Your task to perform on an android device: Open Google Image 0: 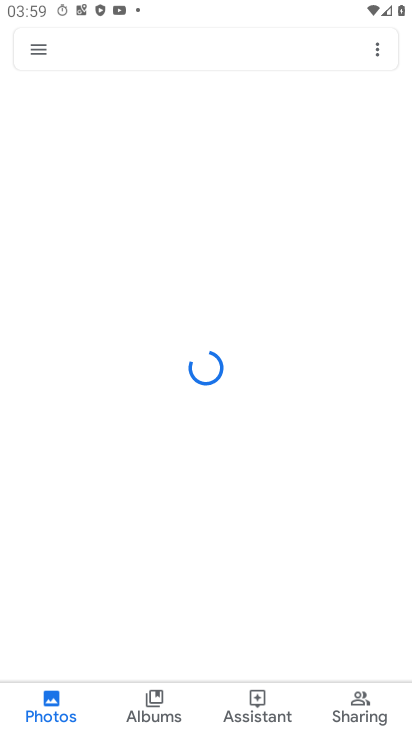
Step 0: press back button
Your task to perform on an android device: Open Google Image 1: 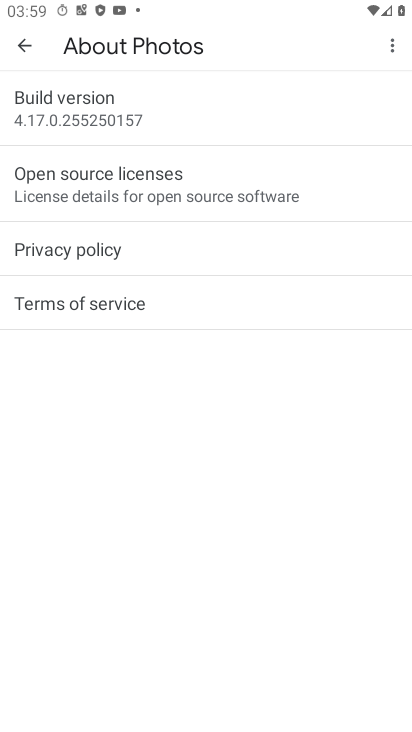
Step 1: click (36, 44)
Your task to perform on an android device: Open Google Image 2: 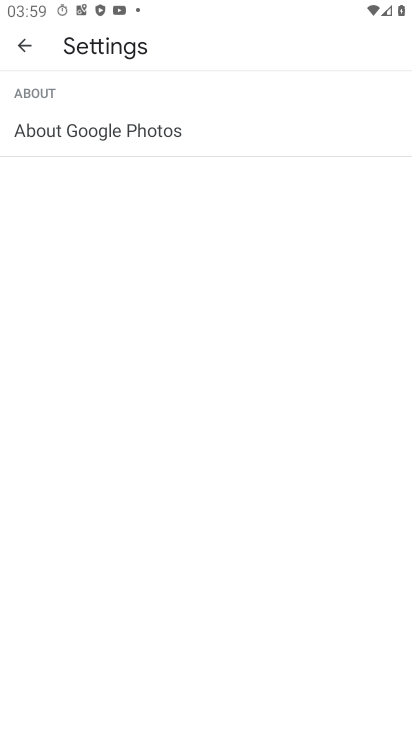
Step 2: click (17, 49)
Your task to perform on an android device: Open Google Image 3: 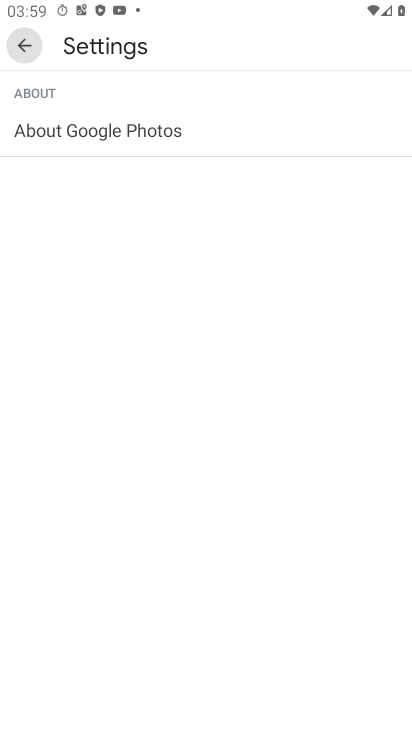
Step 3: click (15, 46)
Your task to perform on an android device: Open Google Image 4: 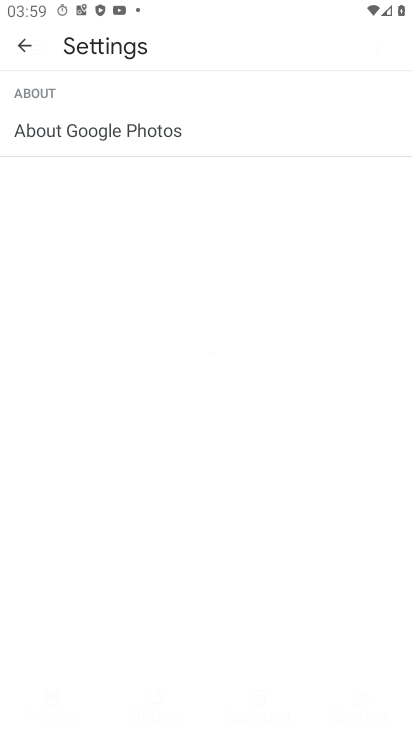
Step 4: click (15, 45)
Your task to perform on an android device: Open Google Image 5: 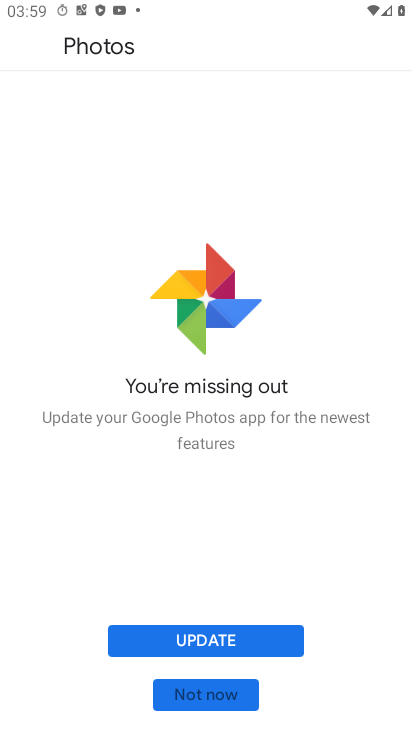
Step 5: click (221, 692)
Your task to perform on an android device: Open Google Image 6: 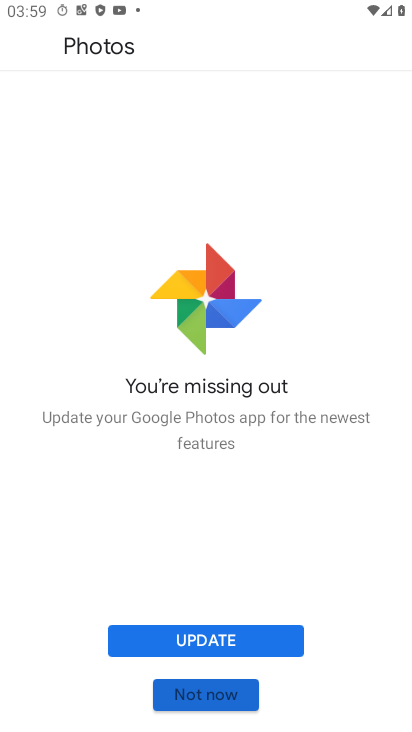
Step 6: click (230, 698)
Your task to perform on an android device: Open Google Image 7: 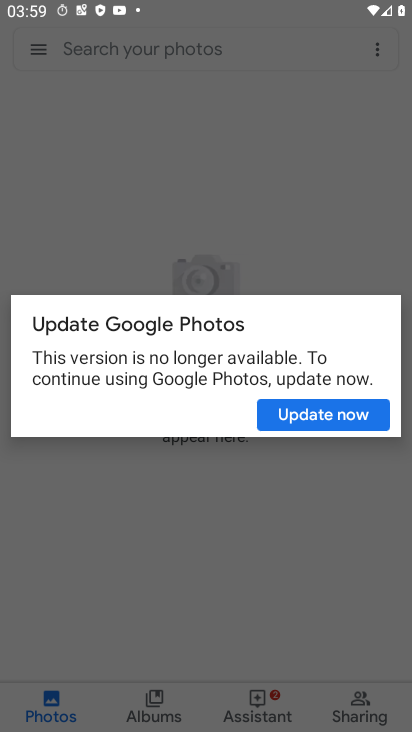
Step 7: click (213, 93)
Your task to perform on an android device: Open Google Image 8: 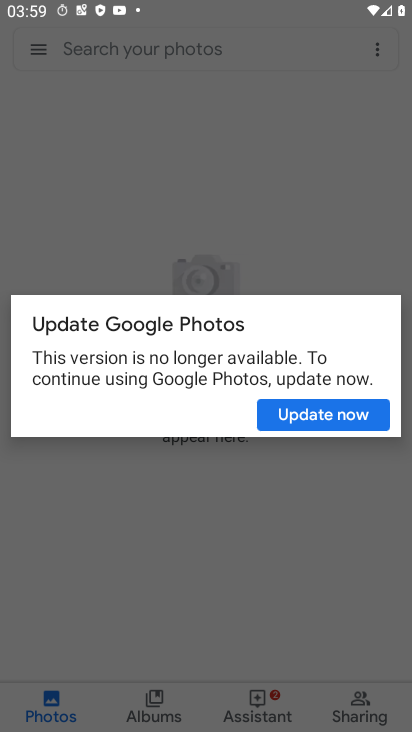
Step 8: click (300, 167)
Your task to perform on an android device: Open Google Image 9: 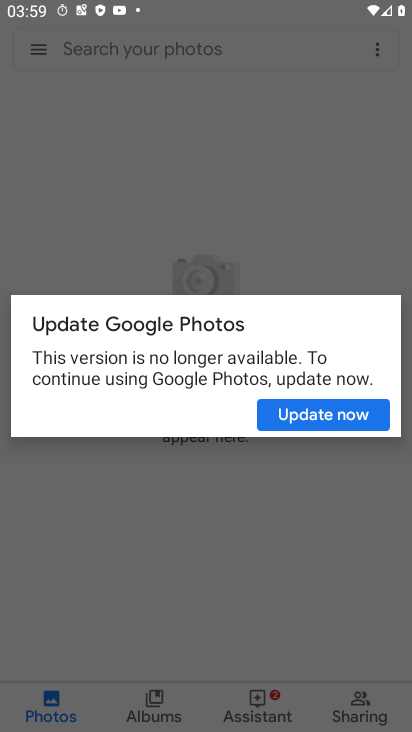
Step 9: click (290, 140)
Your task to perform on an android device: Open Google Image 10: 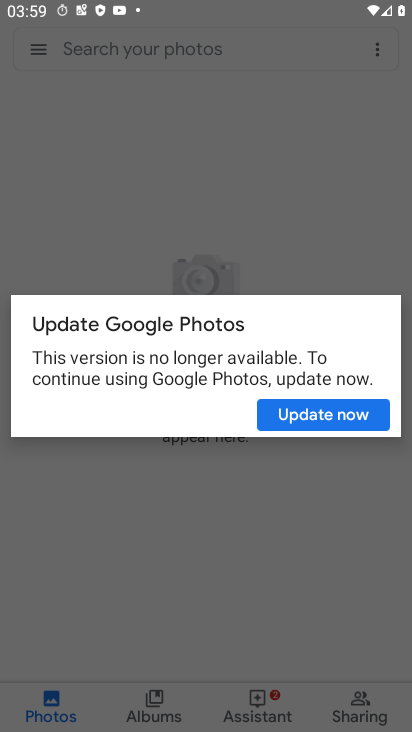
Step 10: click (279, 157)
Your task to perform on an android device: Open Google Image 11: 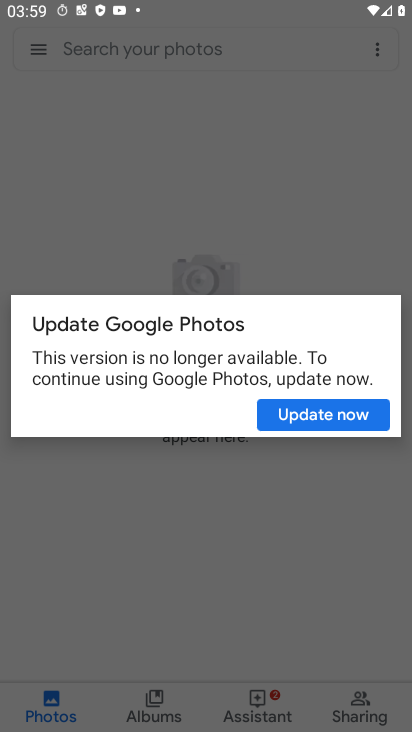
Step 11: click (282, 158)
Your task to perform on an android device: Open Google Image 12: 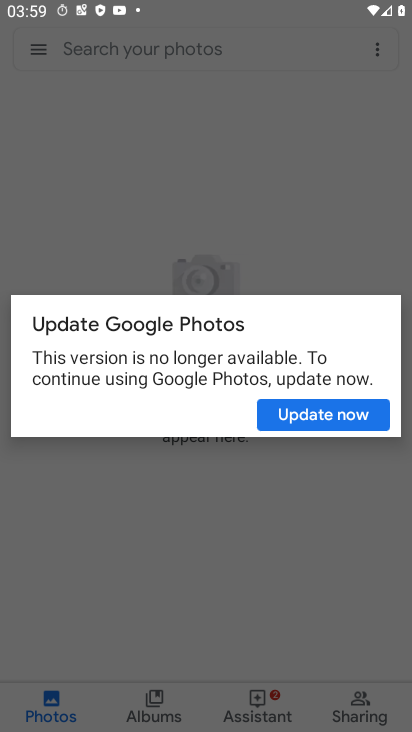
Step 12: click (316, 160)
Your task to perform on an android device: Open Google Image 13: 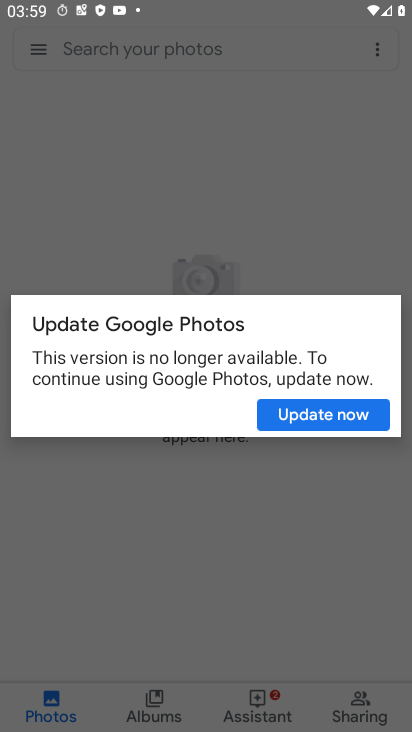
Step 13: click (317, 155)
Your task to perform on an android device: Open Google Image 14: 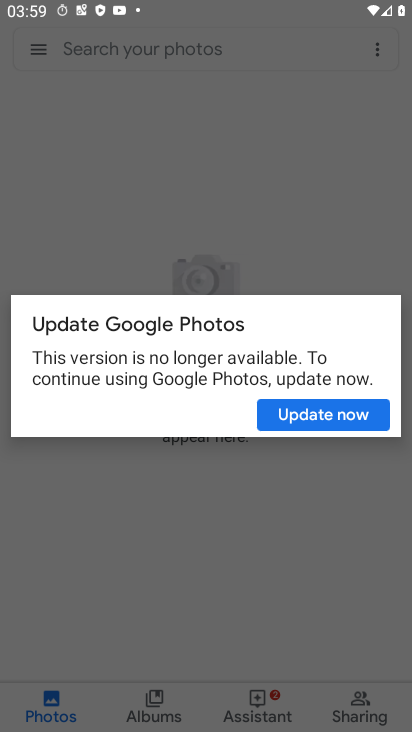
Step 14: click (321, 152)
Your task to perform on an android device: Open Google Image 15: 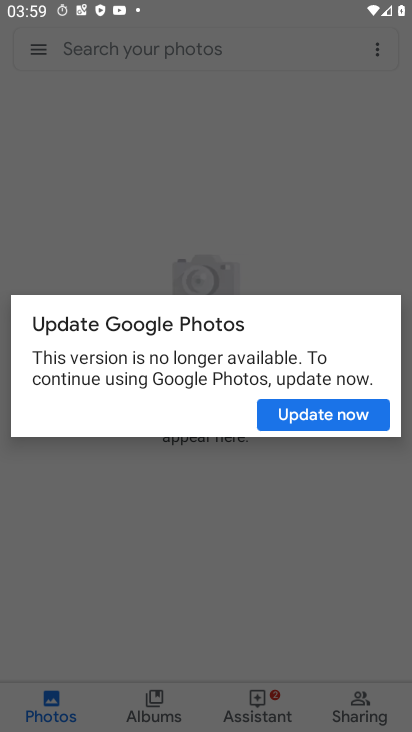
Step 15: click (327, 167)
Your task to perform on an android device: Open Google Image 16: 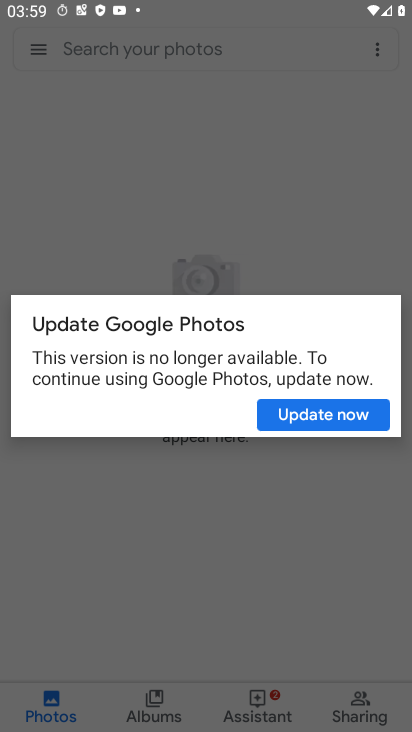
Step 16: click (273, 557)
Your task to perform on an android device: Open Google Image 17: 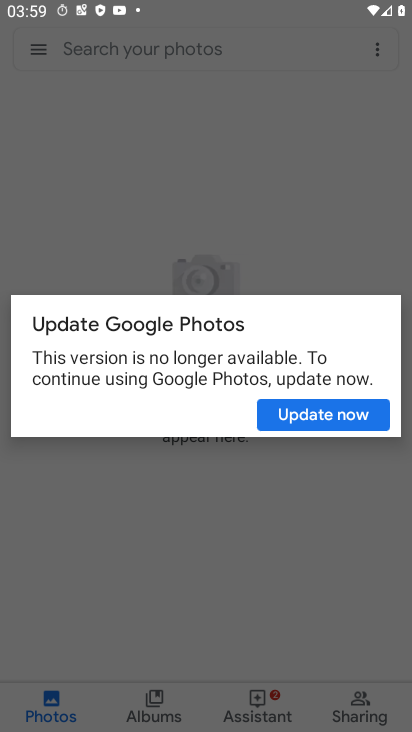
Step 17: click (316, 519)
Your task to perform on an android device: Open Google Image 18: 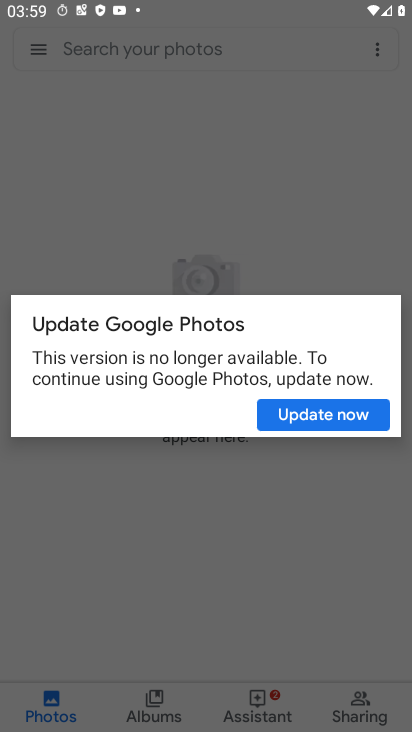
Step 18: click (318, 518)
Your task to perform on an android device: Open Google Image 19: 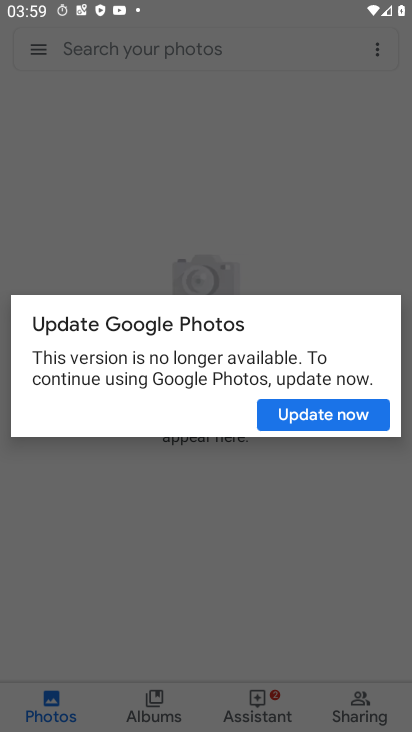
Step 19: click (319, 518)
Your task to perform on an android device: Open Google Image 20: 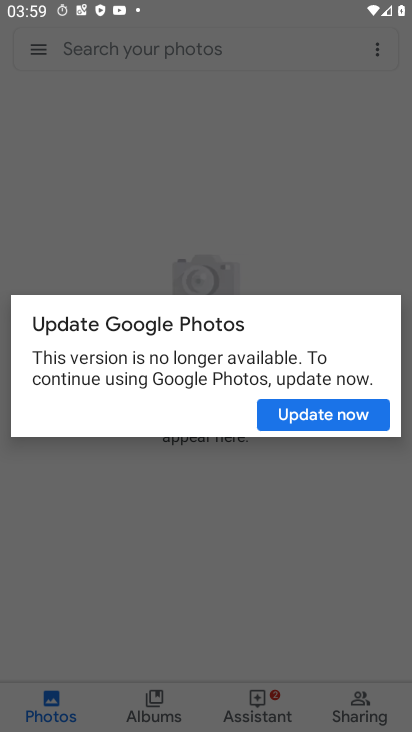
Step 20: click (290, 264)
Your task to perform on an android device: Open Google Image 21: 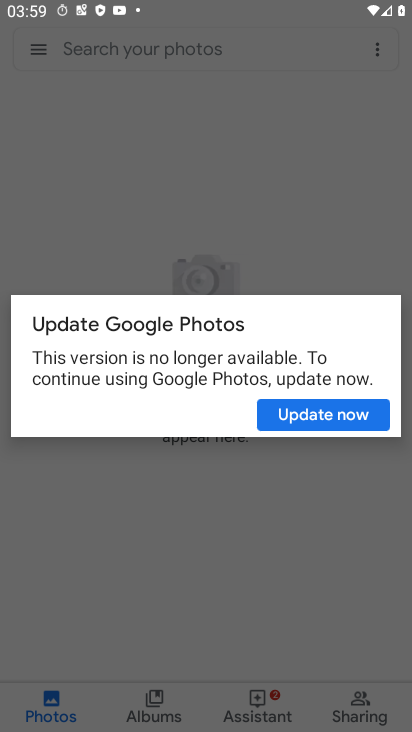
Step 21: press back button
Your task to perform on an android device: Open Google Image 22: 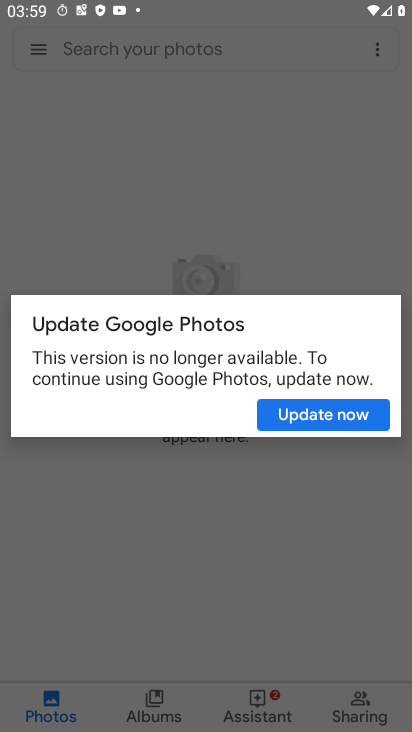
Step 22: press back button
Your task to perform on an android device: Open Google Image 23: 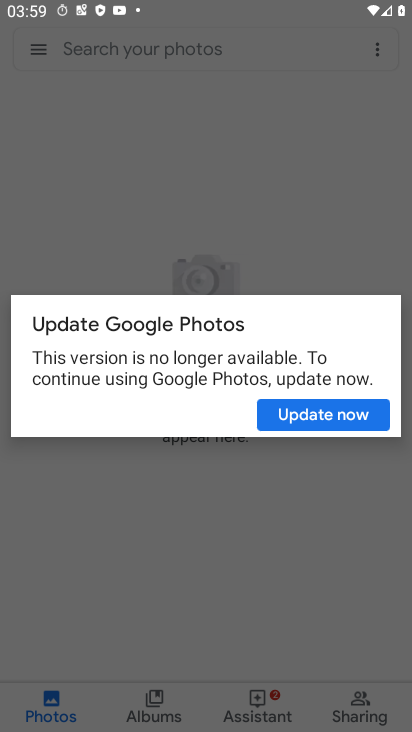
Step 23: press home button
Your task to perform on an android device: Open Google Image 24: 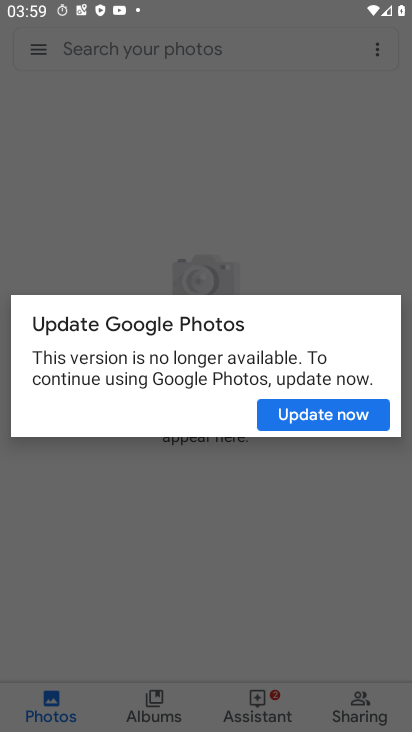
Step 24: press home button
Your task to perform on an android device: Open Google Image 25: 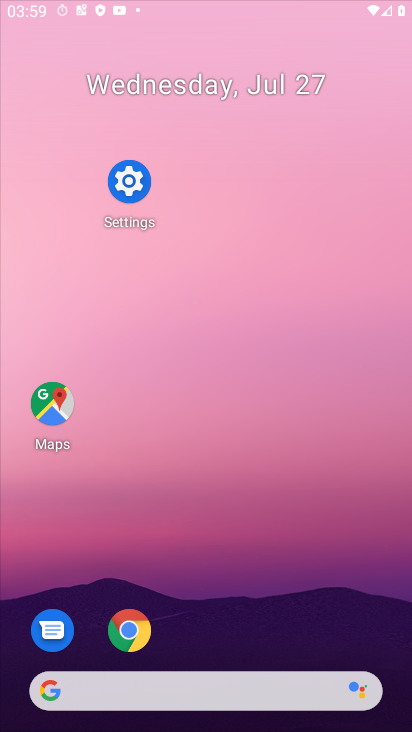
Step 25: press back button
Your task to perform on an android device: Open Google Image 26: 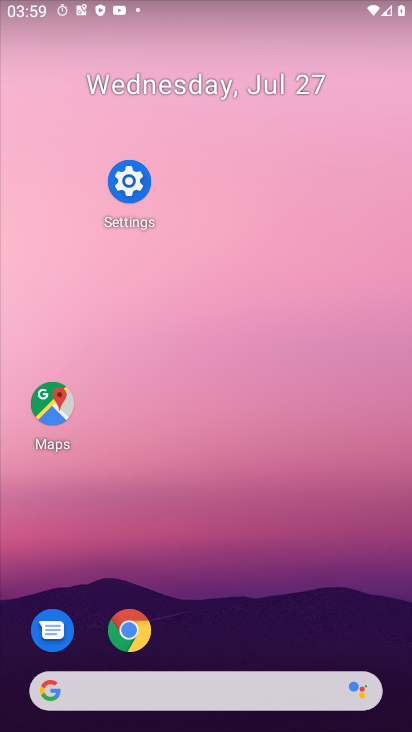
Step 26: drag from (294, 628) to (288, 341)
Your task to perform on an android device: Open Google Image 27: 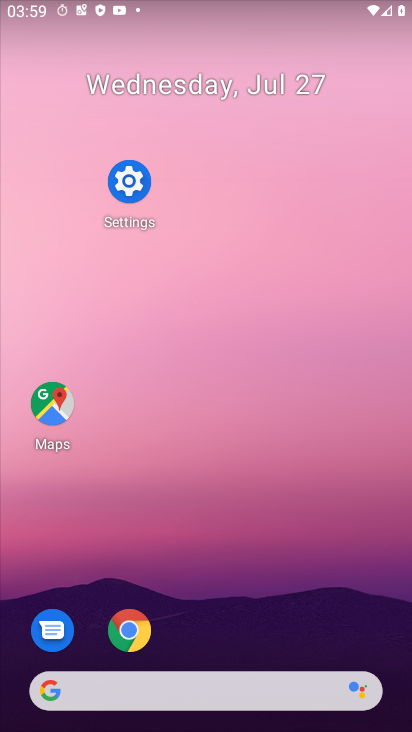
Step 27: drag from (348, 505) to (308, 176)
Your task to perform on an android device: Open Google Image 28: 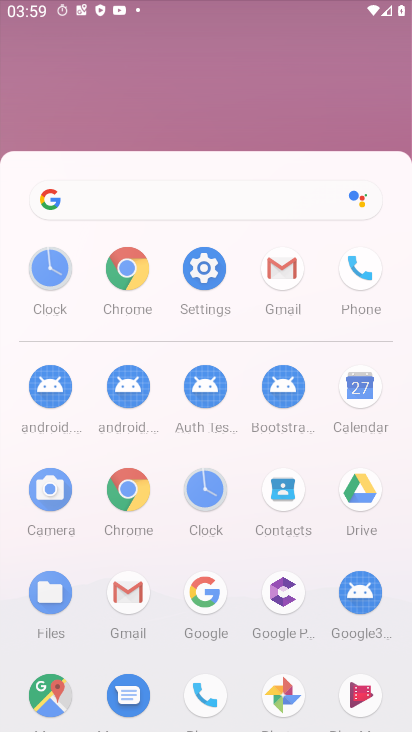
Step 28: drag from (267, 437) to (253, 221)
Your task to perform on an android device: Open Google Image 29: 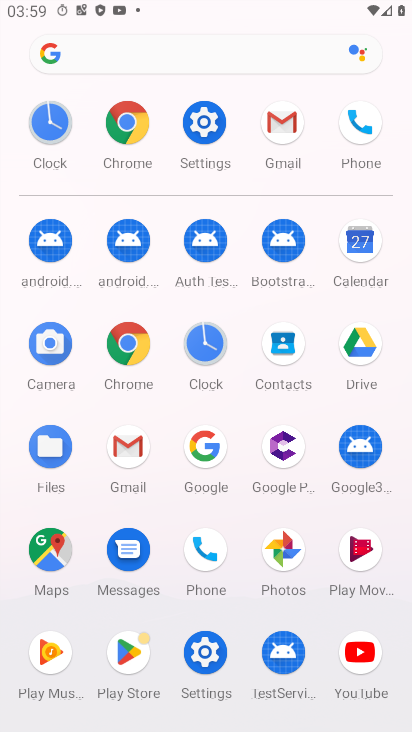
Step 29: click (206, 453)
Your task to perform on an android device: Open Google Image 30: 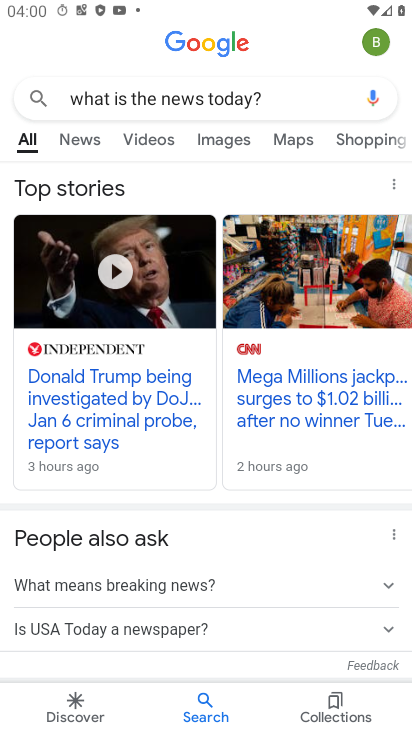
Step 30: task complete